Your task to perform on an android device: turn off sleep mode Image 0: 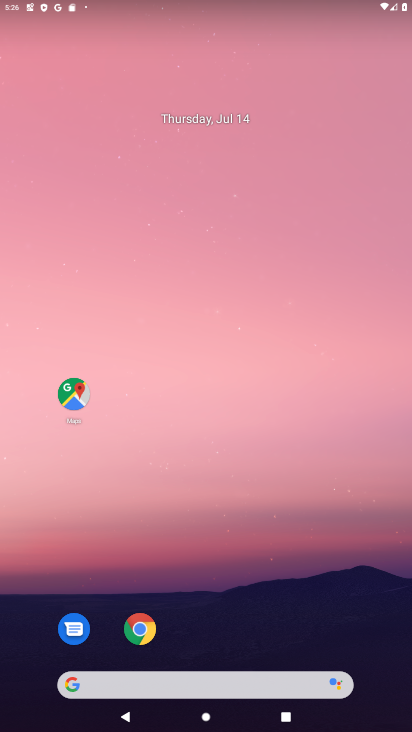
Step 0: drag from (242, 682) to (205, 6)
Your task to perform on an android device: turn off sleep mode Image 1: 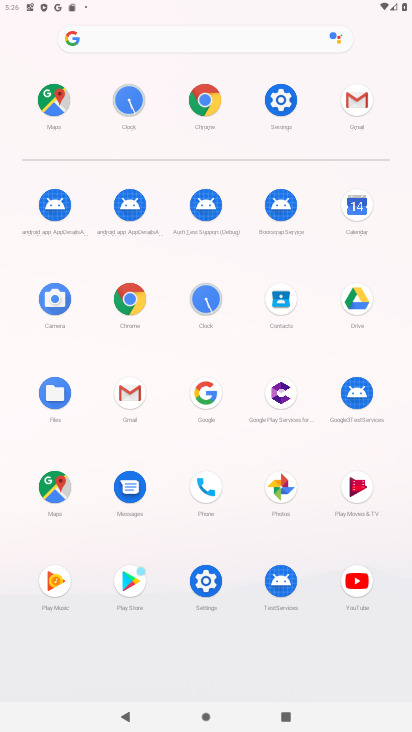
Step 1: click (293, 100)
Your task to perform on an android device: turn off sleep mode Image 2: 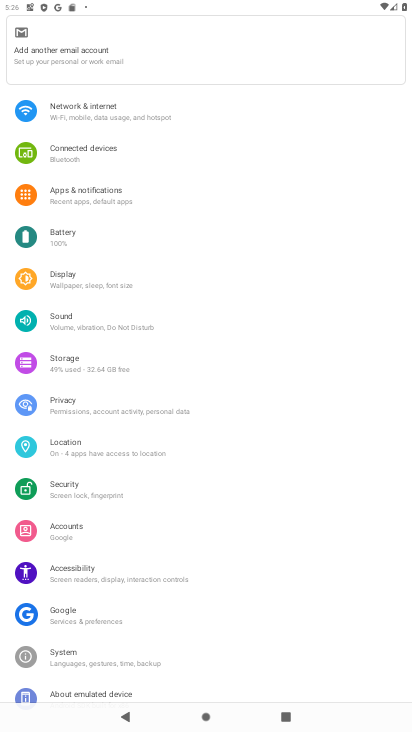
Step 2: click (118, 285)
Your task to perform on an android device: turn off sleep mode Image 3: 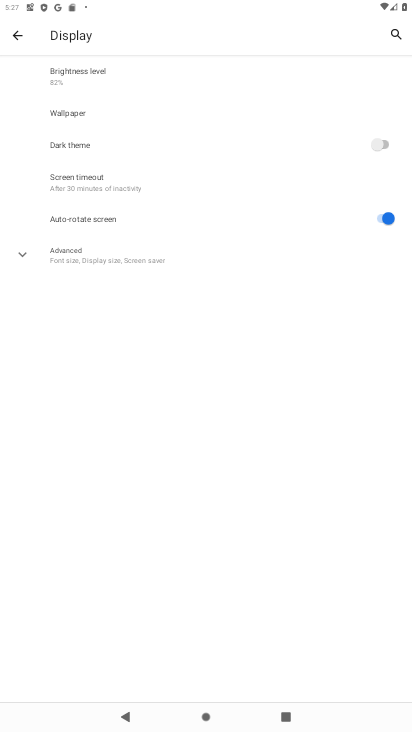
Step 3: task complete